Your task to perform on an android device: Add razer blade to the cart on walmart.com Image 0: 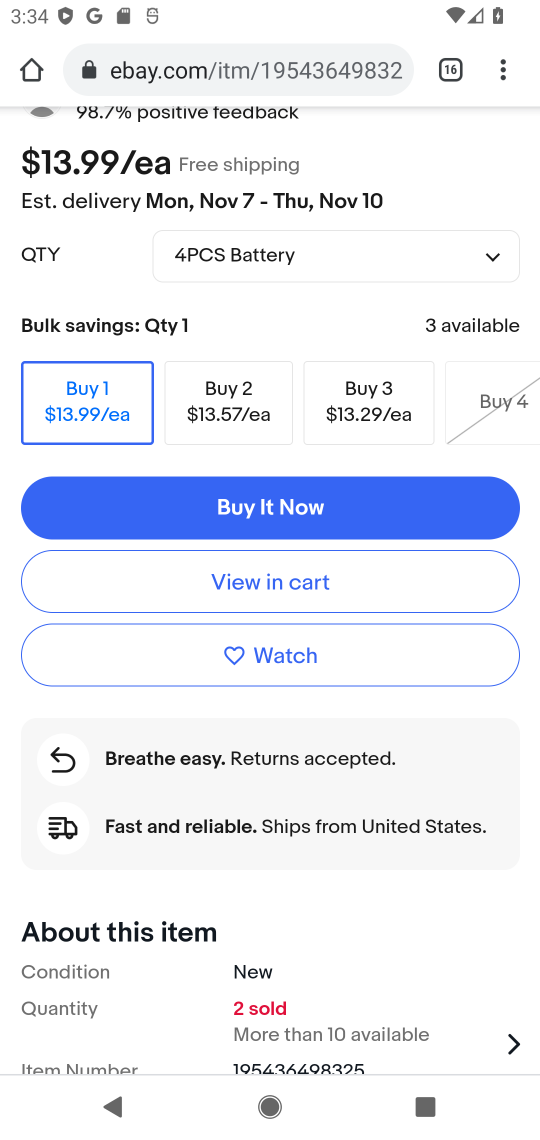
Step 0: press home button
Your task to perform on an android device: Add razer blade to the cart on walmart.com Image 1: 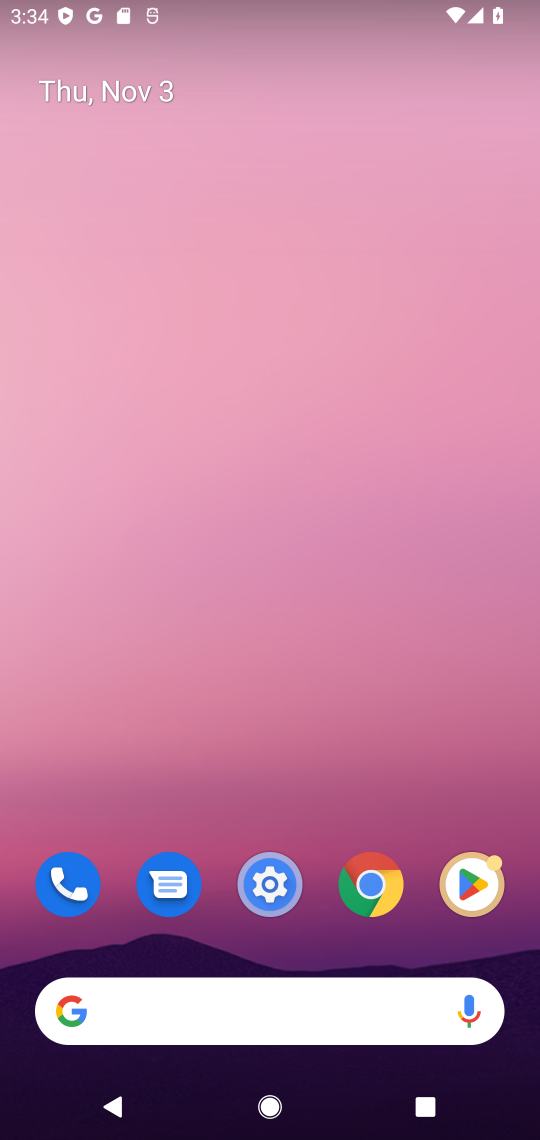
Step 1: click (115, 1011)
Your task to perform on an android device: Add razer blade to the cart on walmart.com Image 2: 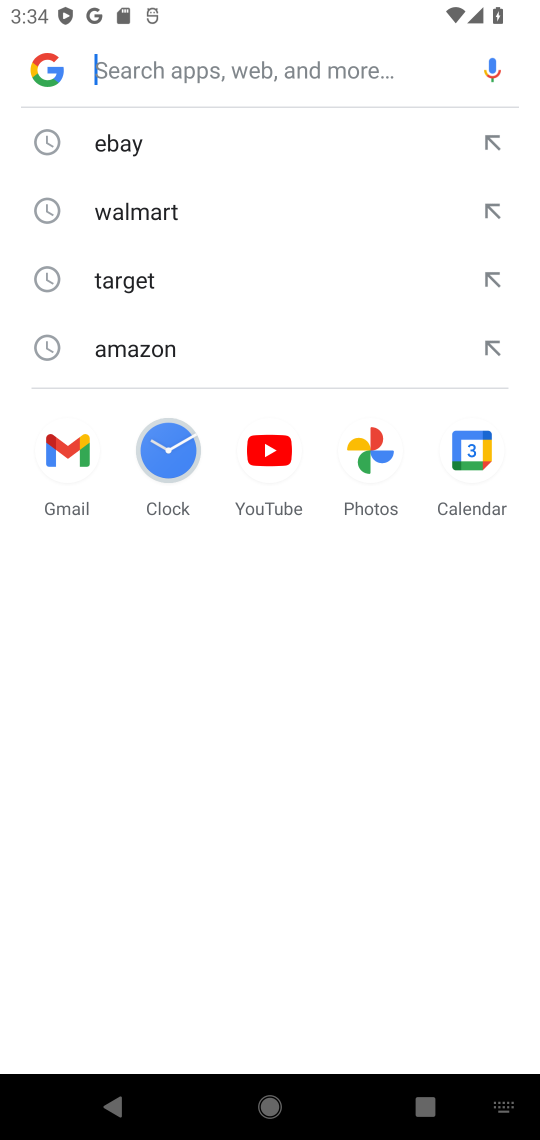
Step 2: type "walmart.com"
Your task to perform on an android device: Add razer blade to the cart on walmart.com Image 3: 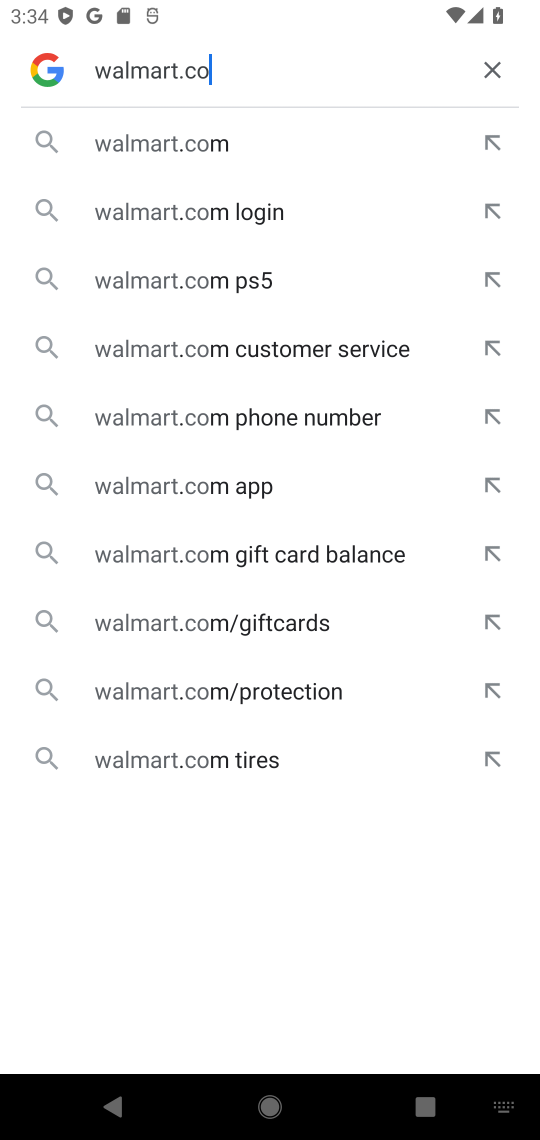
Step 3: press enter
Your task to perform on an android device: Add razer blade to the cart on walmart.com Image 4: 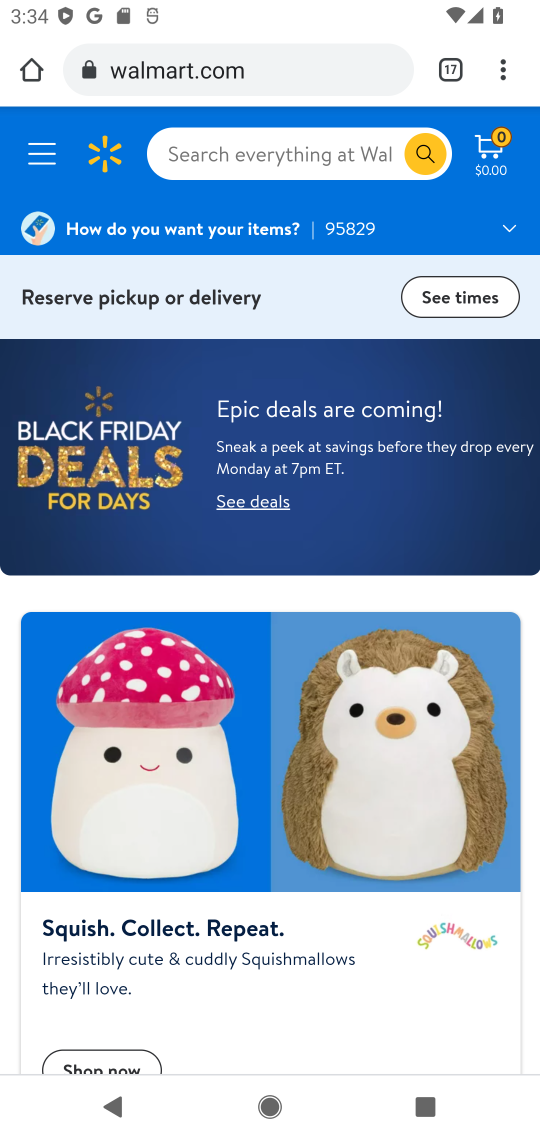
Step 4: click (183, 148)
Your task to perform on an android device: Add razer blade to the cart on walmart.com Image 5: 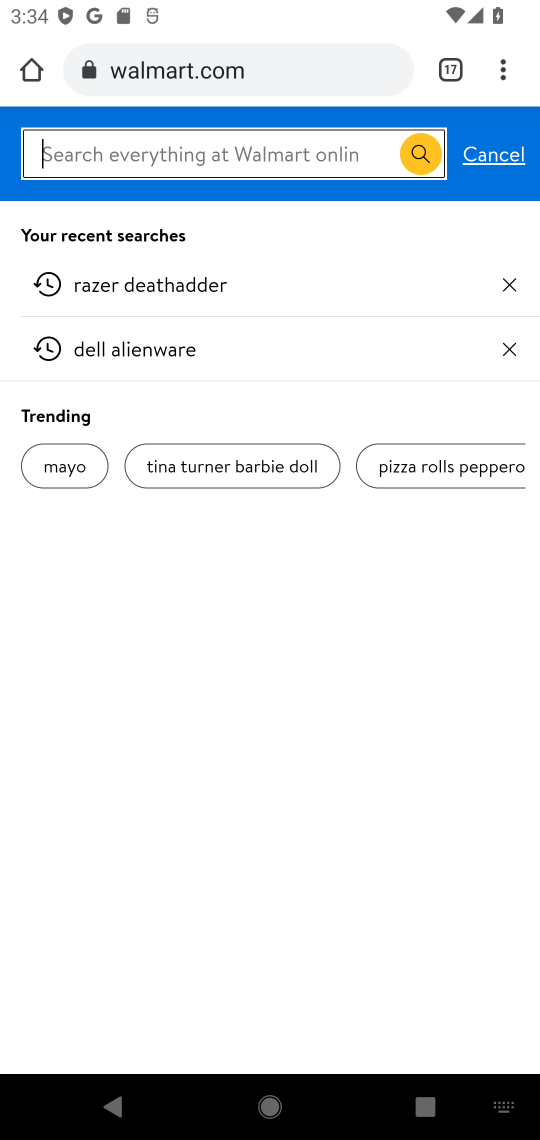
Step 5: type "razer blade"
Your task to perform on an android device: Add razer blade to the cart on walmart.com Image 6: 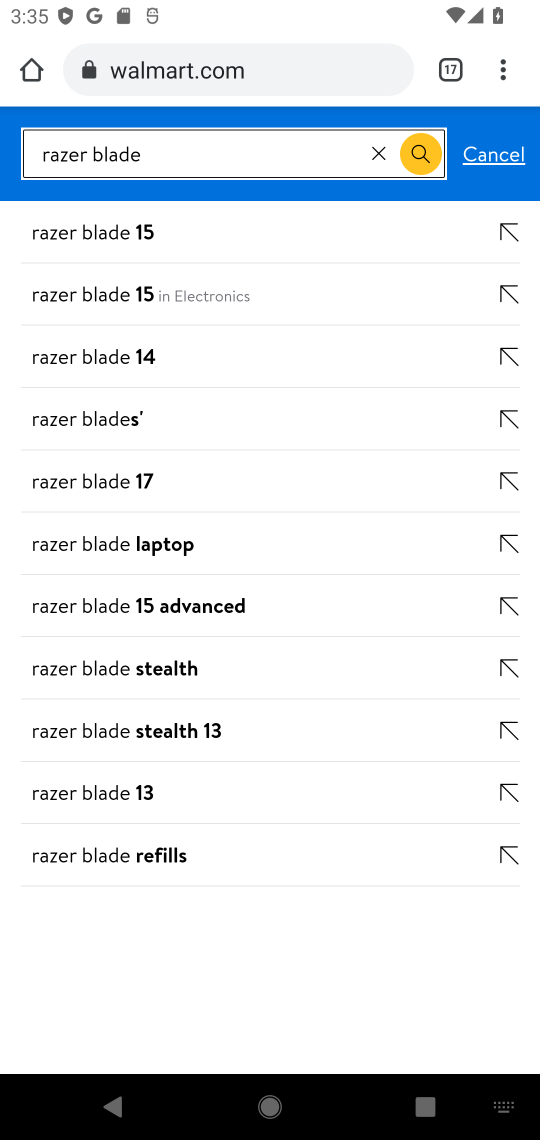
Step 6: click (412, 144)
Your task to perform on an android device: Add razer blade to the cart on walmart.com Image 7: 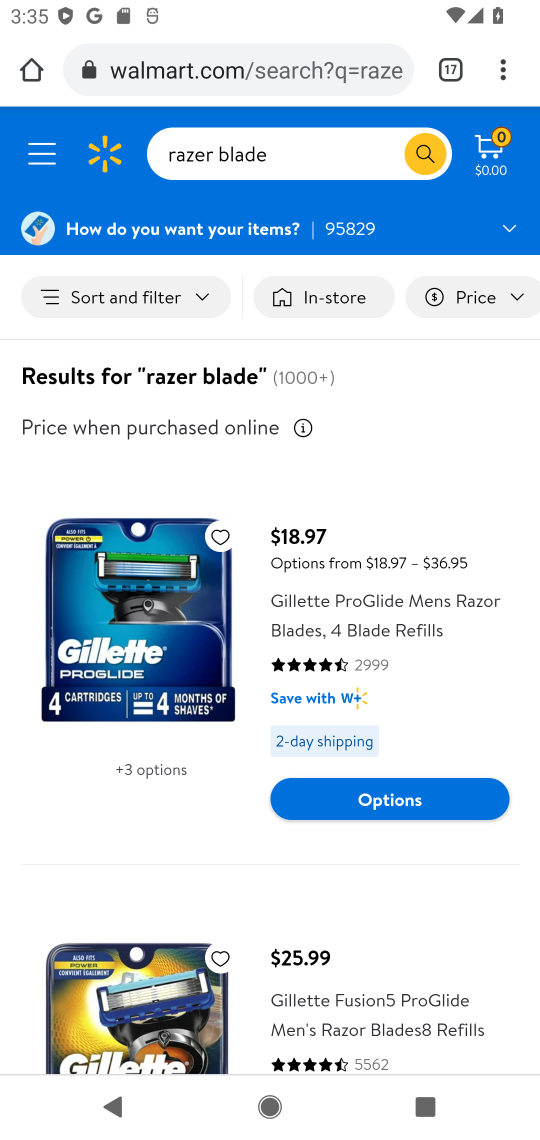
Step 7: click (347, 598)
Your task to perform on an android device: Add razer blade to the cart on walmart.com Image 8: 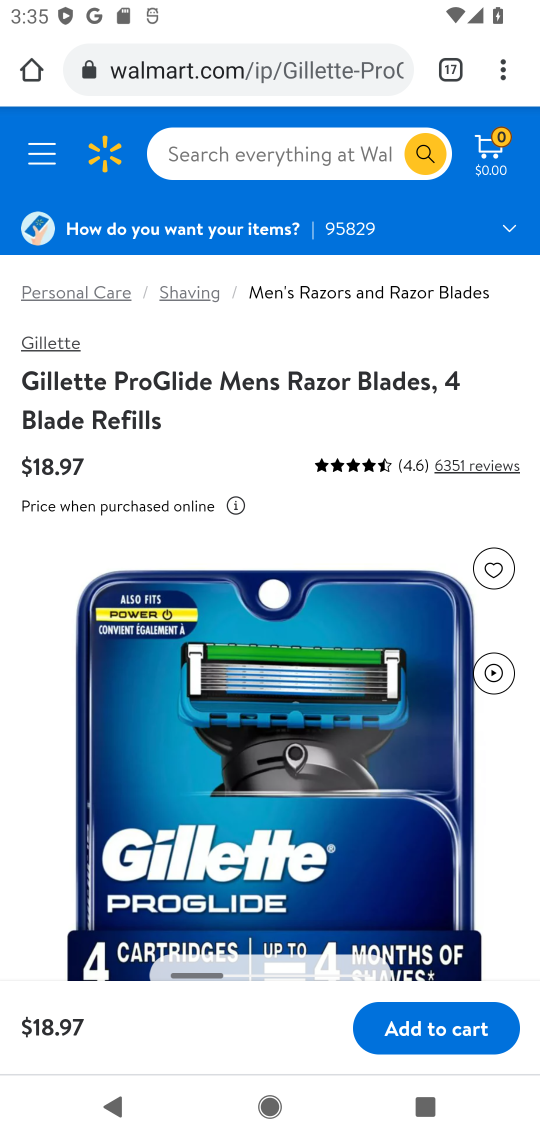
Step 8: click (421, 1034)
Your task to perform on an android device: Add razer blade to the cart on walmart.com Image 9: 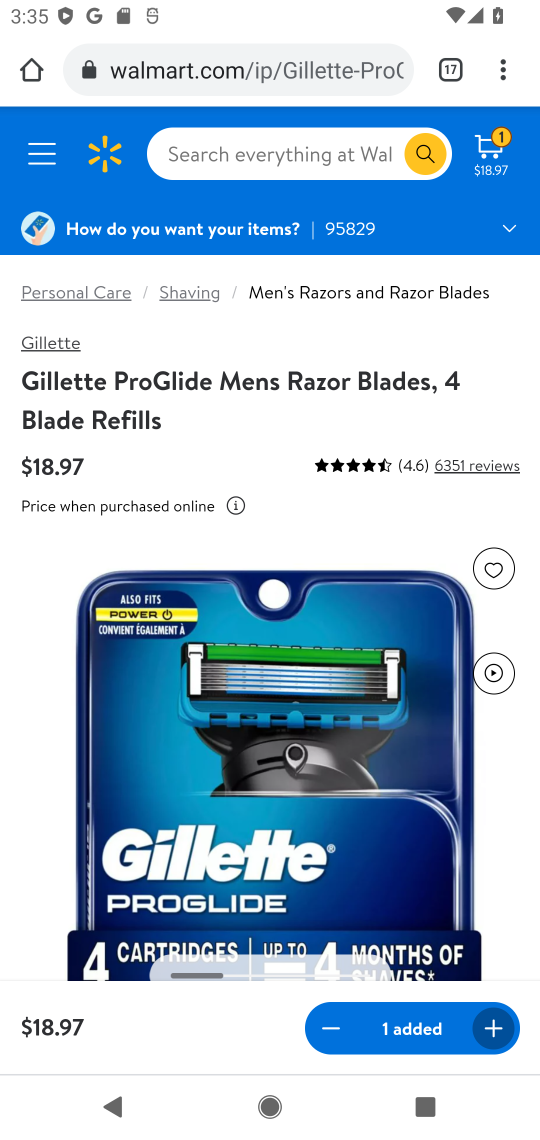
Step 9: task complete